Your task to perform on an android device: Open Youtube and go to the subscriptions tab Image 0: 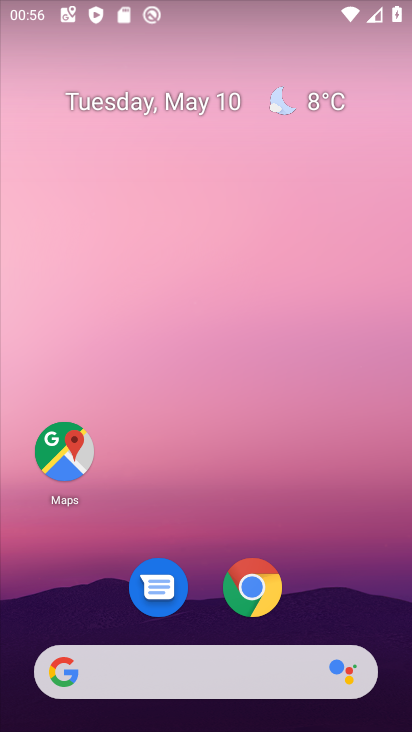
Step 0: drag from (406, 468) to (399, 136)
Your task to perform on an android device: Open Youtube and go to the subscriptions tab Image 1: 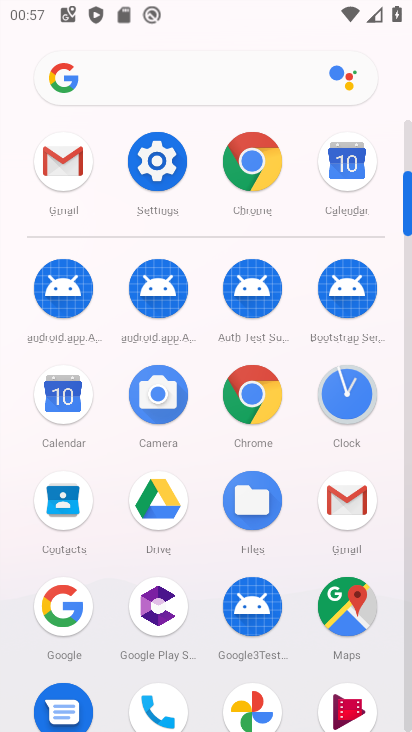
Step 1: click (398, 151)
Your task to perform on an android device: Open Youtube and go to the subscriptions tab Image 2: 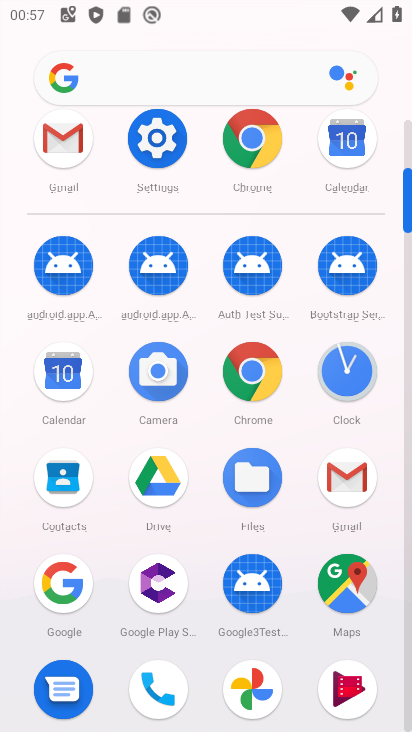
Step 2: drag from (408, 169) to (395, 101)
Your task to perform on an android device: Open Youtube and go to the subscriptions tab Image 3: 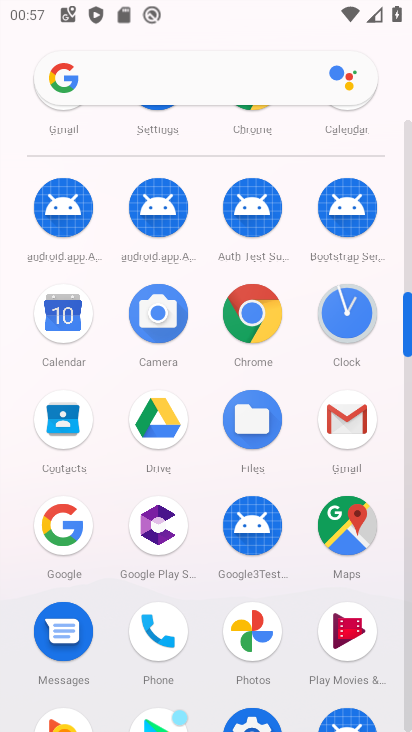
Step 3: click (408, 302)
Your task to perform on an android device: Open Youtube and go to the subscriptions tab Image 4: 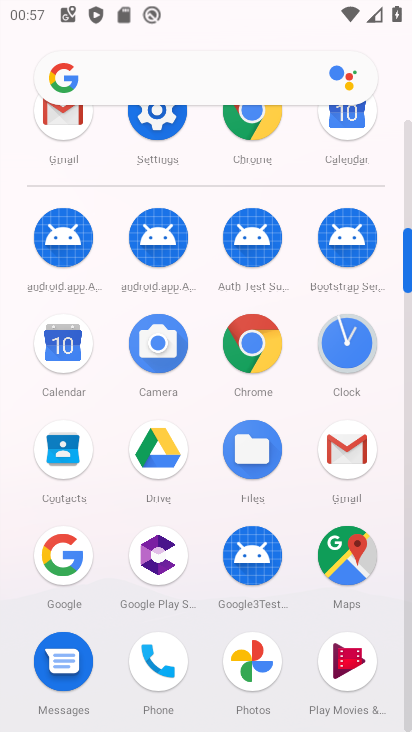
Step 4: click (410, 205)
Your task to perform on an android device: Open Youtube and go to the subscriptions tab Image 5: 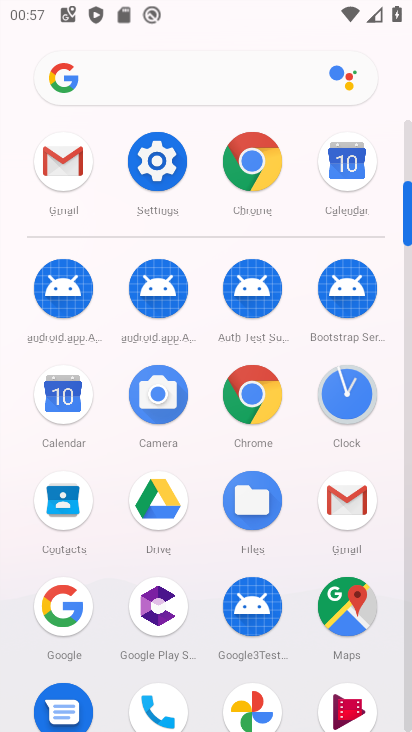
Step 5: drag from (408, 194) to (397, 55)
Your task to perform on an android device: Open Youtube and go to the subscriptions tab Image 6: 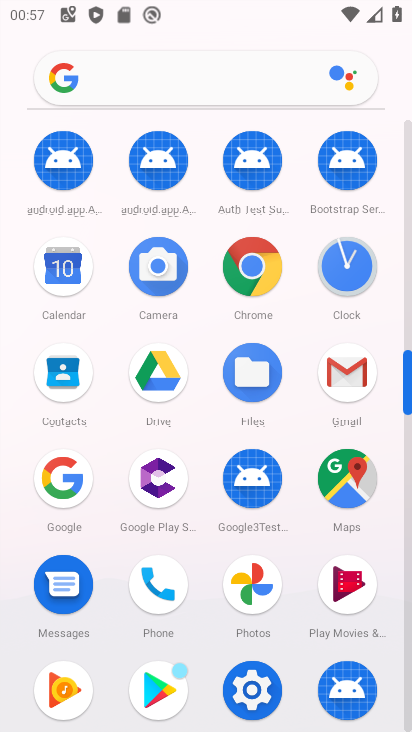
Step 6: drag from (409, 358) to (408, 231)
Your task to perform on an android device: Open Youtube and go to the subscriptions tab Image 7: 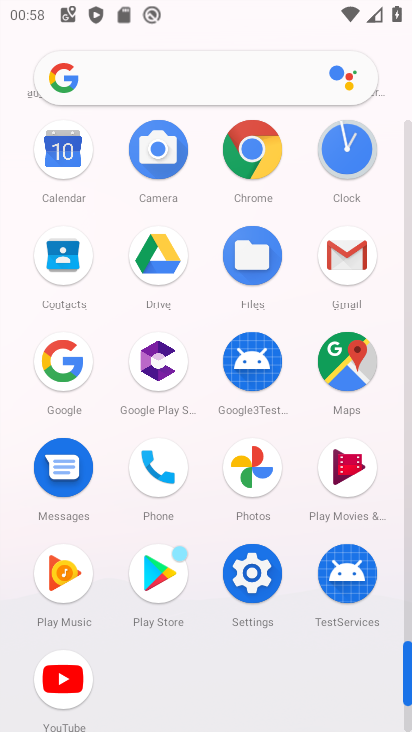
Step 7: click (56, 687)
Your task to perform on an android device: Open Youtube and go to the subscriptions tab Image 8: 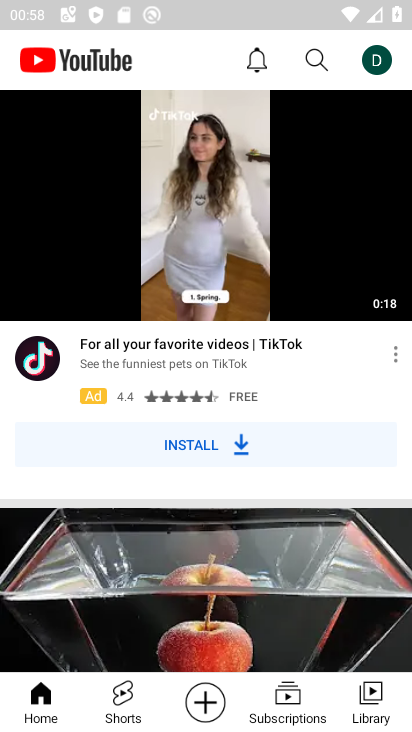
Step 8: click (295, 704)
Your task to perform on an android device: Open Youtube and go to the subscriptions tab Image 9: 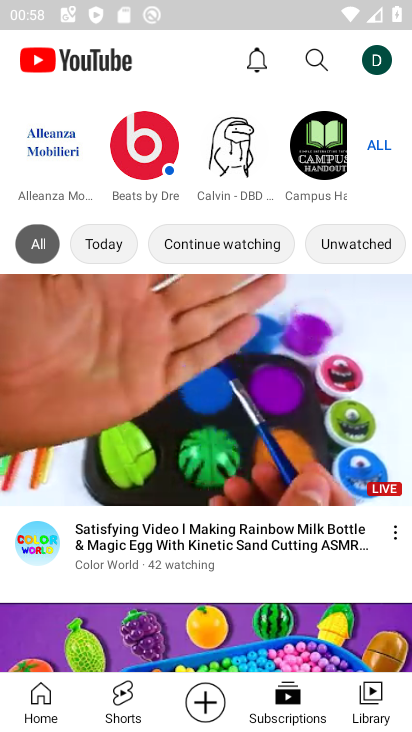
Step 9: click (269, 701)
Your task to perform on an android device: Open Youtube and go to the subscriptions tab Image 10: 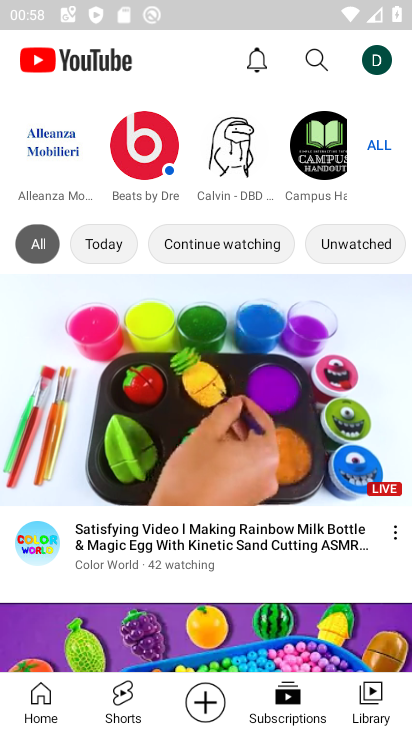
Step 10: task complete